Your task to perform on an android device: delete a single message in the gmail app Image 0: 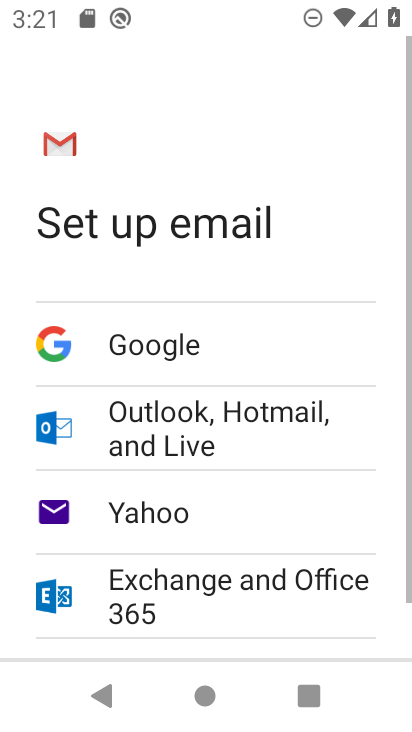
Step 0: press home button
Your task to perform on an android device: delete a single message in the gmail app Image 1: 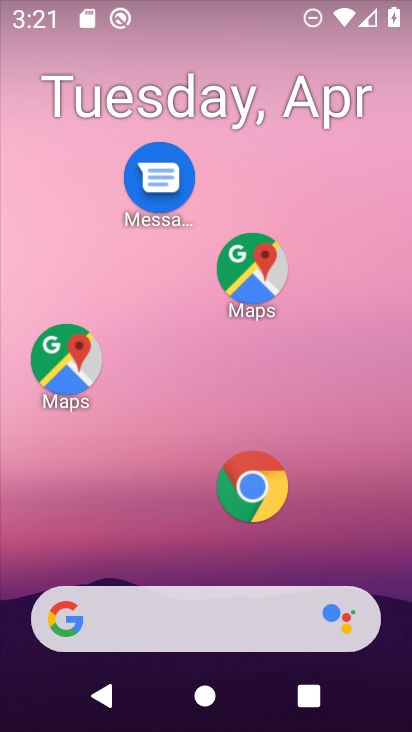
Step 1: drag from (254, 524) to (338, 120)
Your task to perform on an android device: delete a single message in the gmail app Image 2: 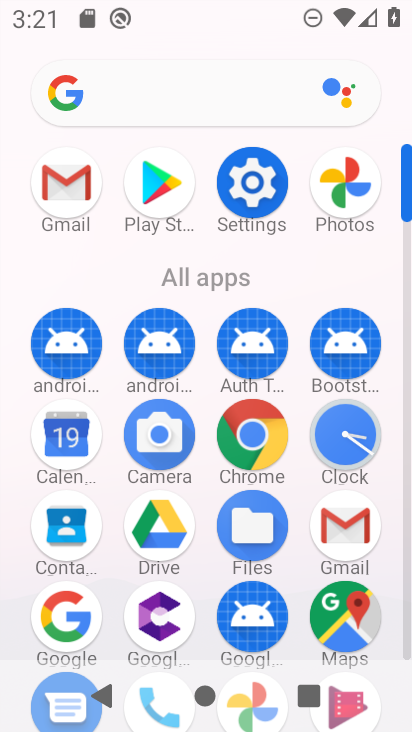
Step 2: click (351, 500)
Your task to perform on an android device: delete a single message in the gmail app Image 3: 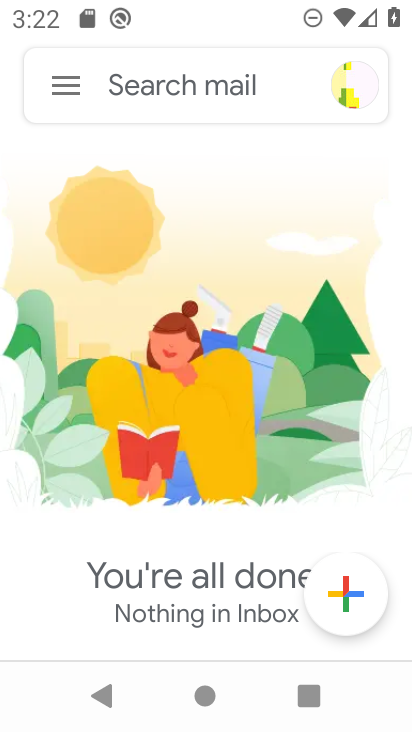
Step 3: task complete